Your task to perform on an android device: uninstall "Google Sheets" Image 0: 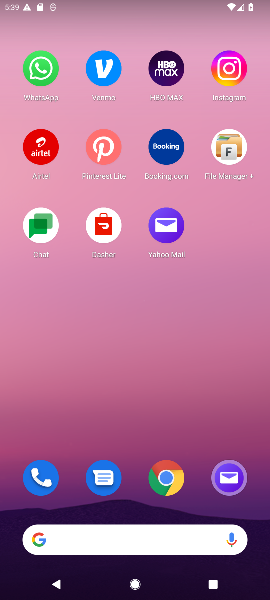
Step 0: drag from (142, 410) to (176, 0)
Your task to perform on an android device: uninstall "Google Sheets" Image 1: 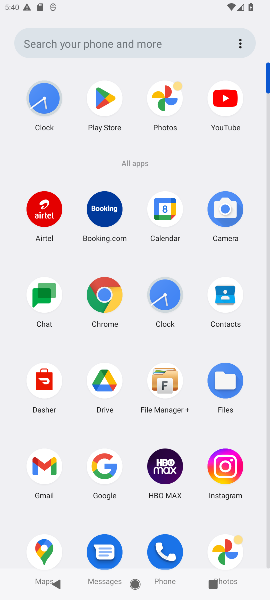
Step 1: click (112, 99)
Your task to perform on an android device: uninstall "Google Sheets" Image 2: 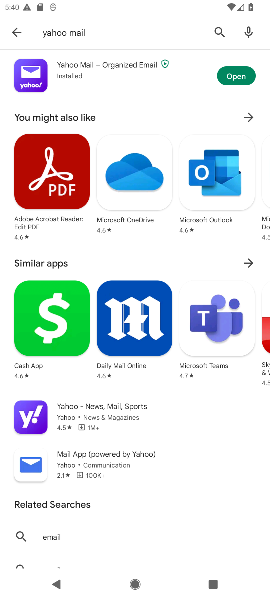
Step 2: click (214, 30)
Your task to perform on an android device: uninstall "Google Sheets" Image 3: 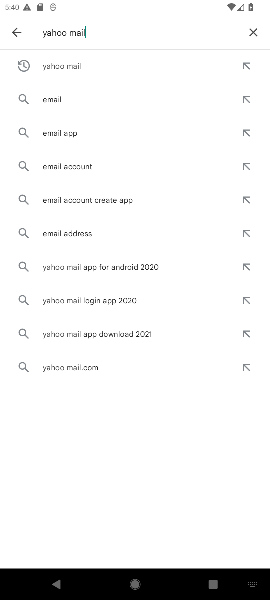
Step 3: click (249, 28)
Your task to perform on an android device: uninstall "Google Sheets" Image 4: 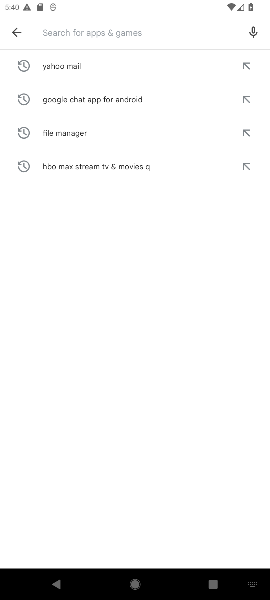
Step 4: type "google sheets"
Your task to perform on an android device: uninstall "Google Sheets" Image 5: 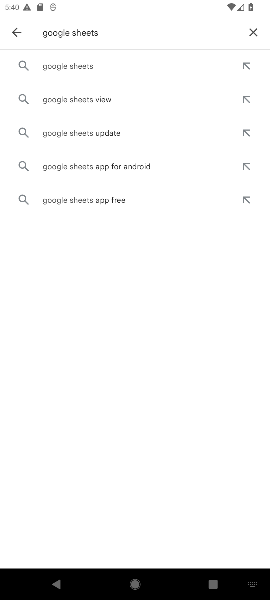
Step 5: click (86, 62)
Your task to perform on an android device: uninstall "Google Sheets" Image 6: 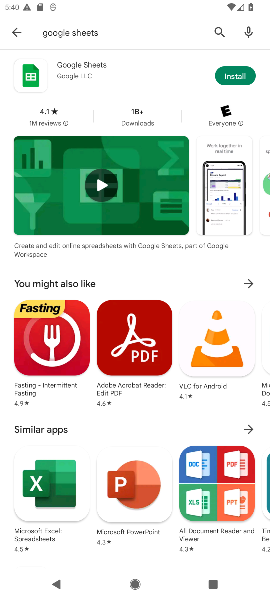
Step 6: click (231, 77)
Your task to perform on an android device: uninstall "Google Sheets" Image 7: 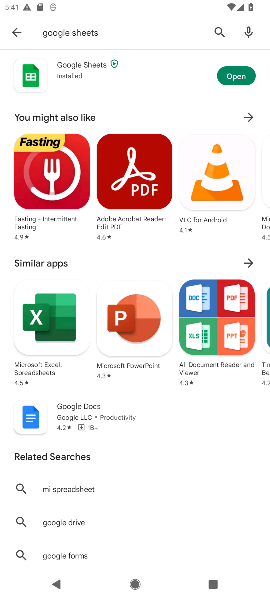
Step 7: click (83, 70)
Your task to perform on an android device: uninstall "Google Sheets" Image 8: 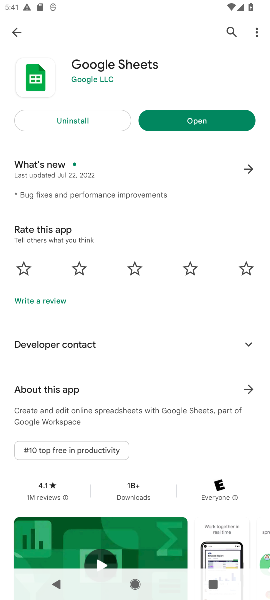
Step 8: click (86, 116)
Your task to perform on an android device: uninstall "Google Sheets" Image 9: 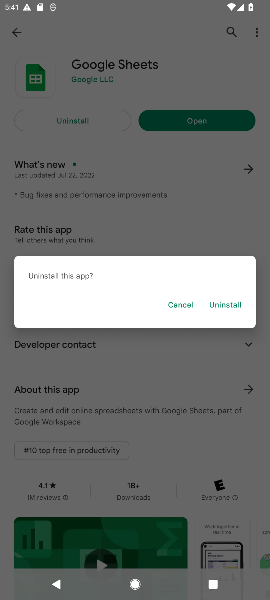
Step 9: click (221, 303)
Your task to perform on an android device: uninstall "Google Sheets" Image 10: 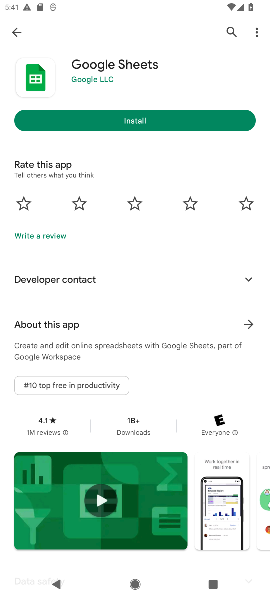
Step 10: task complete